Your task to perform on an android device: turn on airplane mode Image 0: 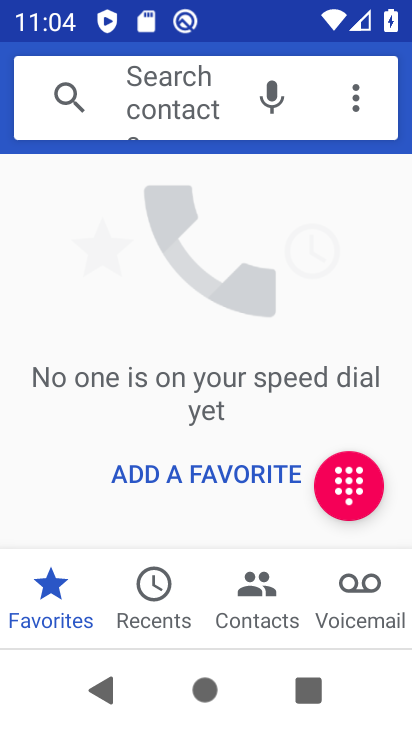
Step 0: press home button
Your task to perform on an android device: turn on airplane mode Image 1: 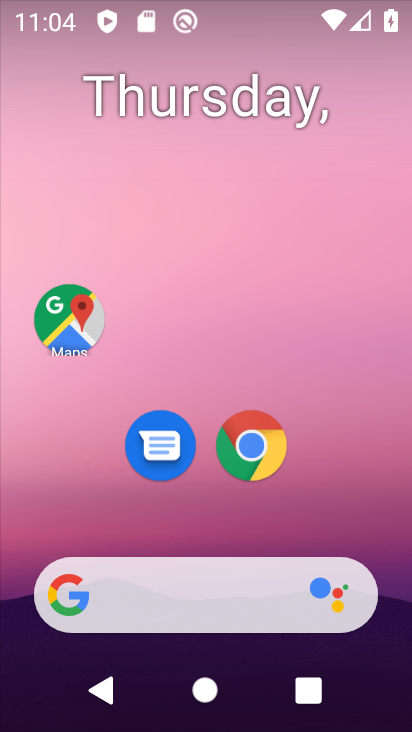
Step 1: drag from (206, 456) to (206, 53)
Your task to perform on an android device: turn on airplane mode Image 2: 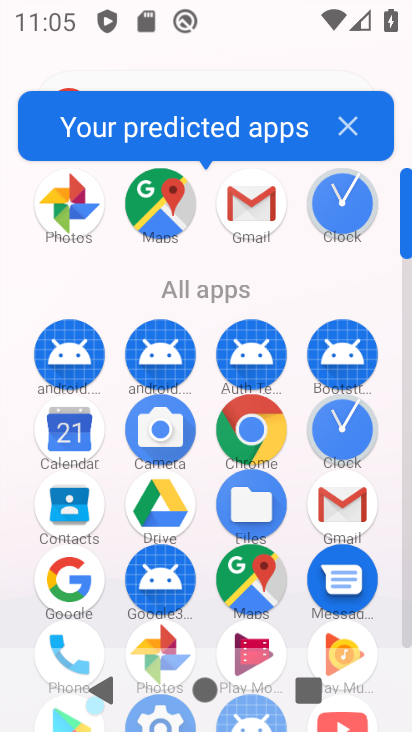
Step 2: drag from (107, 613) to (111, 284)
Your task to perform on an android device: turn on airplane mode Image 3: 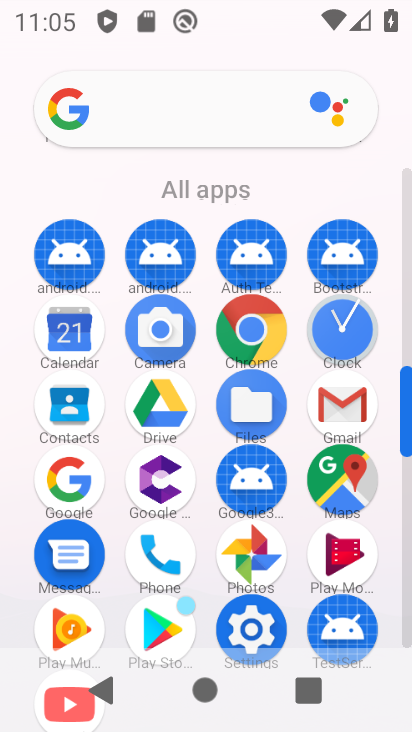
Step 3: click (235, 609)
Your task to perform on an android device: turn on airplane mode Image 4: 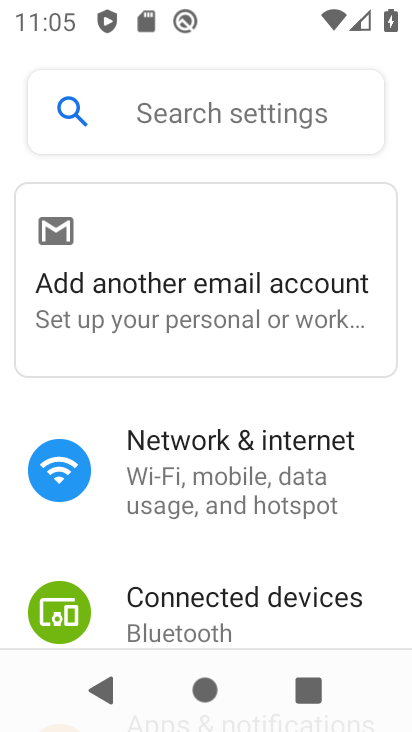
Step 4: click (202, 414)
Your task to perform on an android device: turn on airplane mode Image 5: 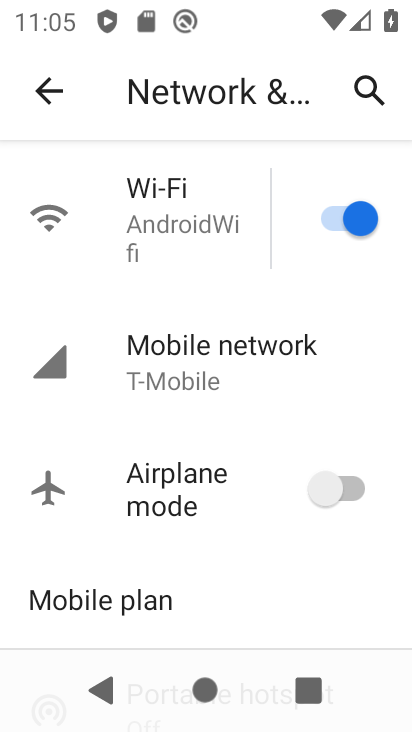
Step 5: click (362, 499)
Your task to perform on an android device: turn on airplane mode Image 6: 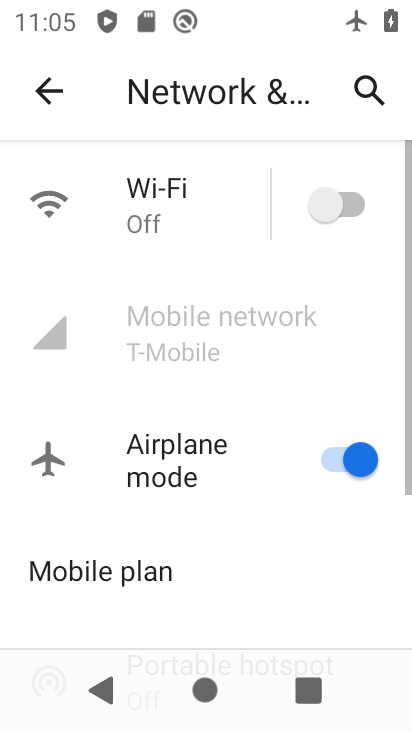
Step 6: task complete